Your task to perform on an android device: Open network settings Image 0: 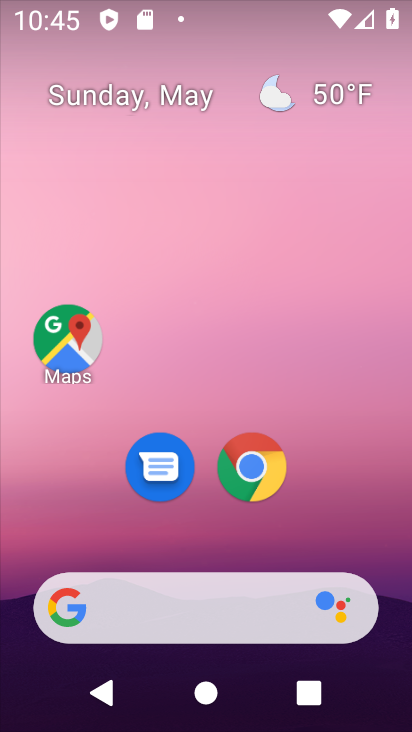
Step 0: drag from (146, 572) to (236, 58)
Your task to perform on an android device: Open network settings Image 1: 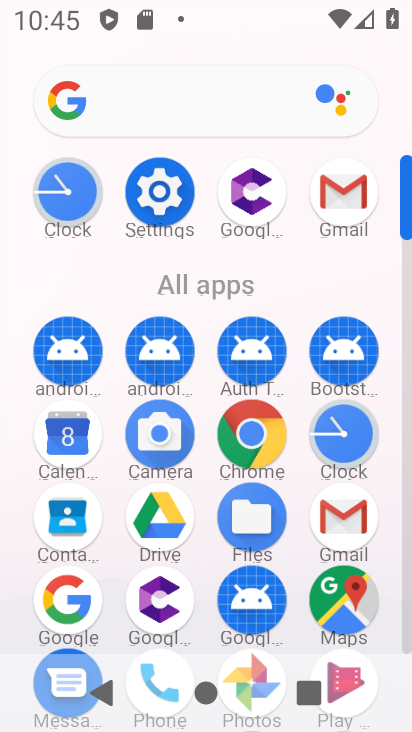
Step 1: drag from (219, 621) to (251, 459)
Your task to perform on an android device: Open network settings Image 2: 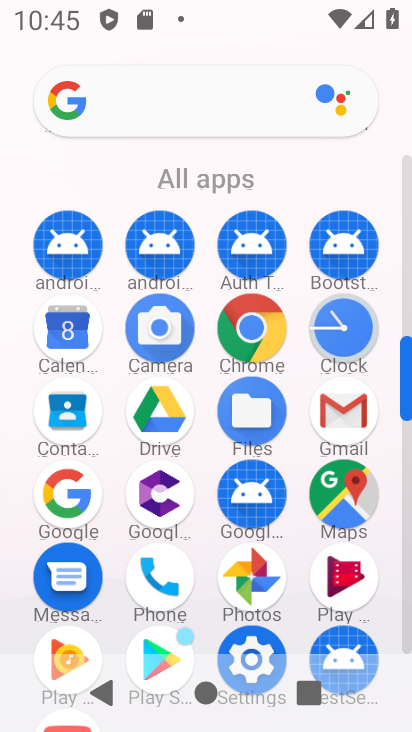
Step 2: click (256, 634)
Your task to perform on an android device: Open network settings Image 3: 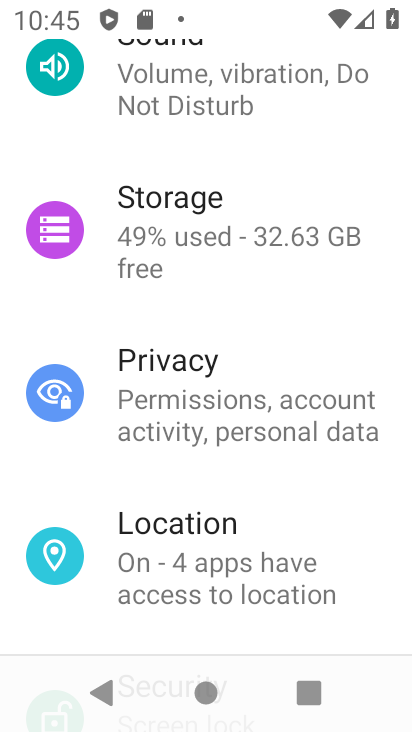
Step 3: drag from (266, 146) to (158, 552)
Your task to perform on an android device: Open network settings Image 4: 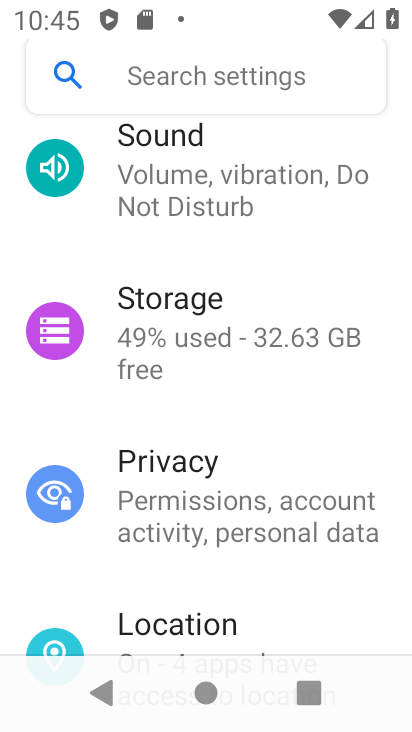
Step 4: drag from (276, 163) to (281, 436)
Your task to perform on an android device: Open network settings Image 5: 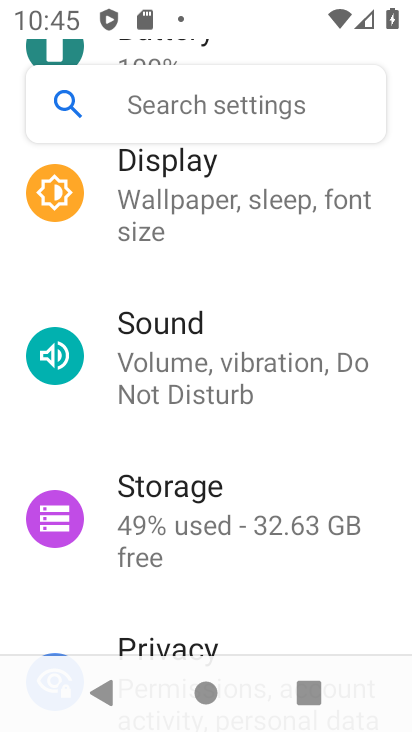
Step 5: drag from (321, 204) to (317, 626)
Your task to perform on an android device: Open network settings Image 6: 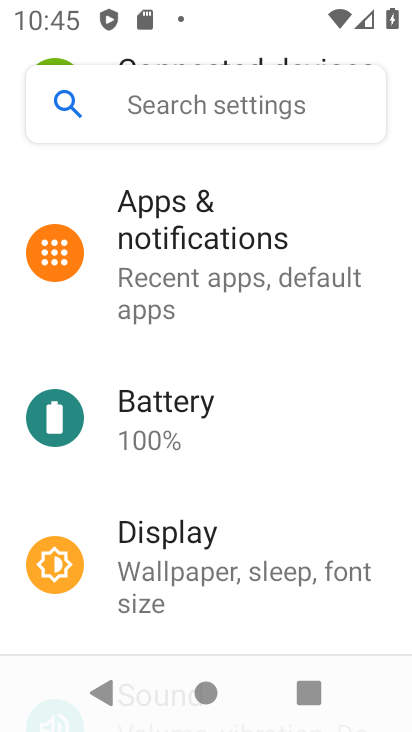
Step 6: drag from (305, 226) to (319, 544)
Your task to perform on an android device: Open network settings Image 7: 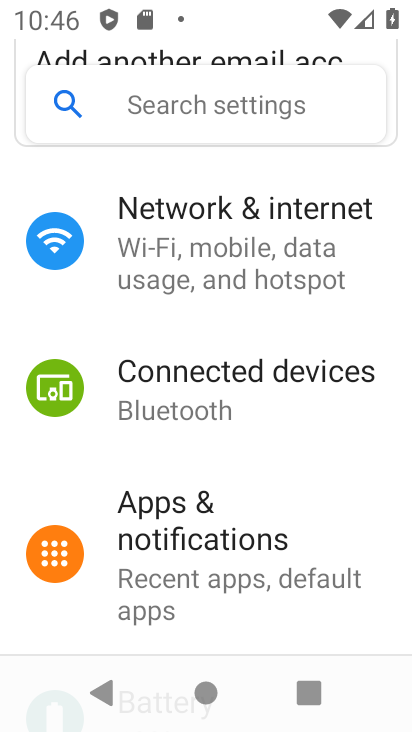
Step 7: click (326, 249)
Your task to perform on an android device: Open network settings Image 8: 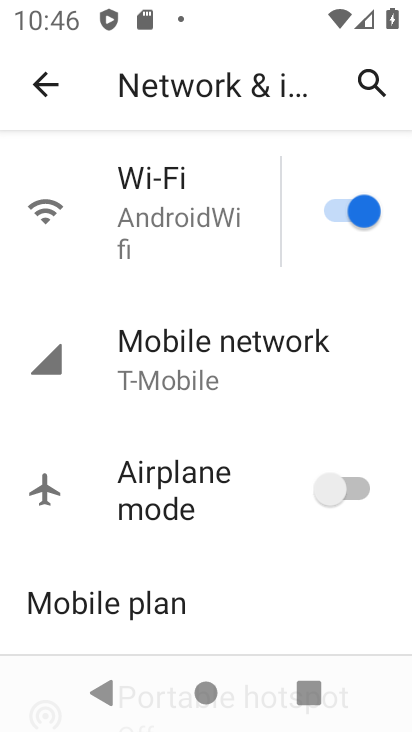
Step 8: click (296, 382)
Your task to perform on an android device: Open network settings Image 9: 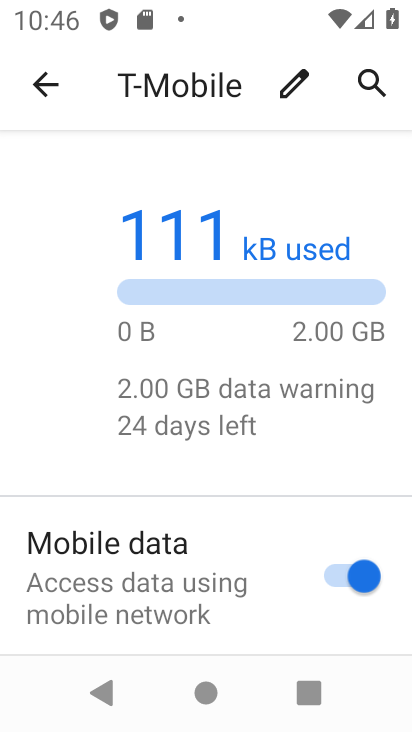
Step 9: task complete